Your task to perform on an android device: Show me the best rated power washer on Home Depot. Image 0: 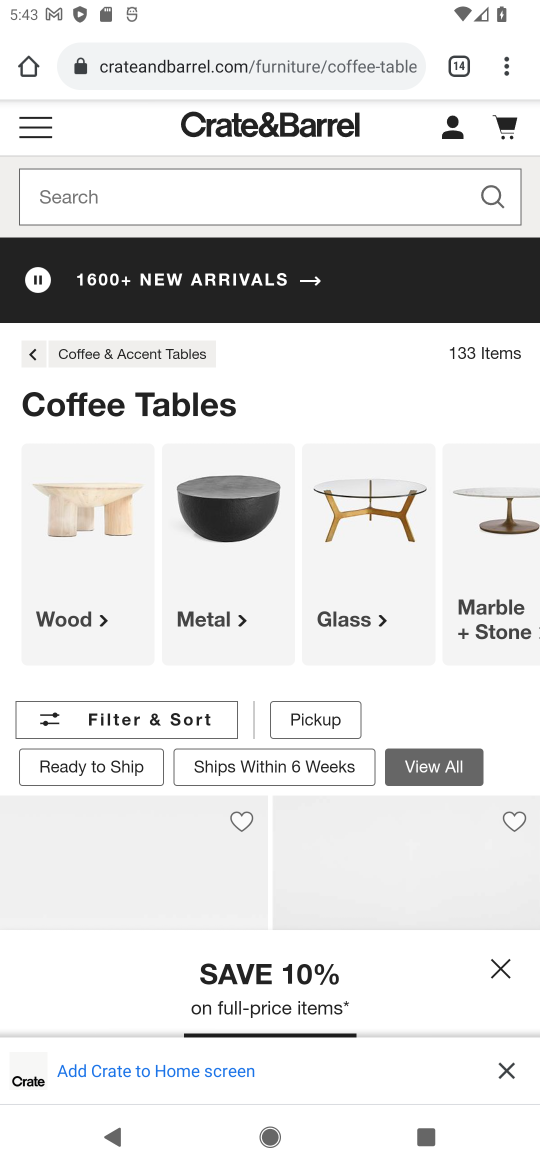
Step 0: drag from (508, 71) to (288, 207)
Your task to perform on an android device: Show me the best rated power washer on Home Depot. Image 1: 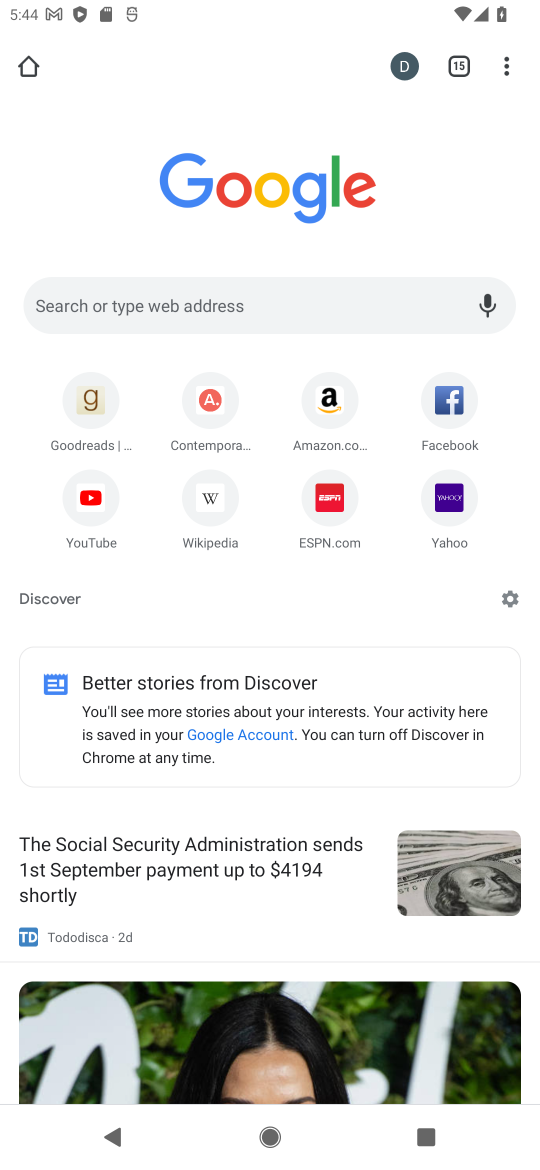
Step 1: click (337, 314)
Your task to perform on an android device: Show me the best rated power washer on Home Depot. Image 2: 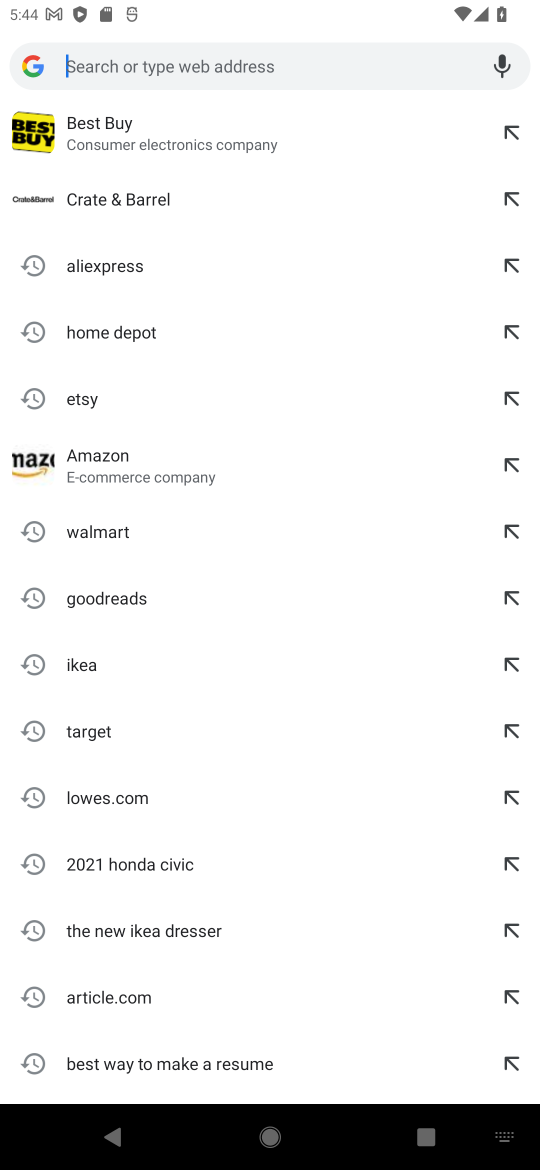
Step 2: type "Home Depot"
Your task to perform on an android device: Show me the best rated power washer on Home Depot. Image 3: 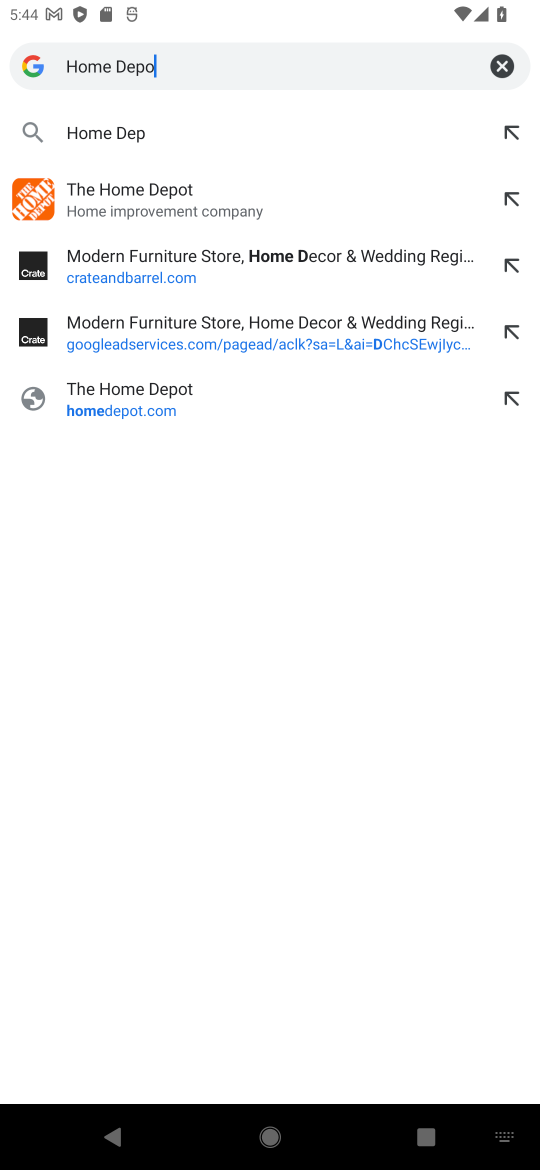
Step 3: type ""
Your task to perform on an android device: Show me the best rated power washer on Home Depot. Image 4: 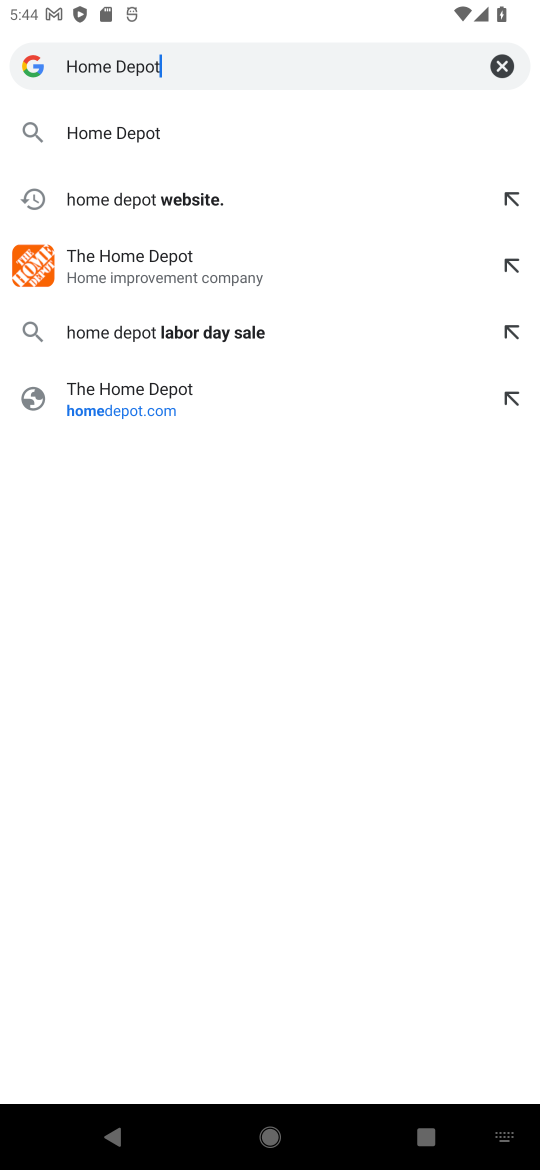
Step 4: click (115, 129)
Your task to perform on an android device: Show me the best rated power washer on Home Depot. Image 5: 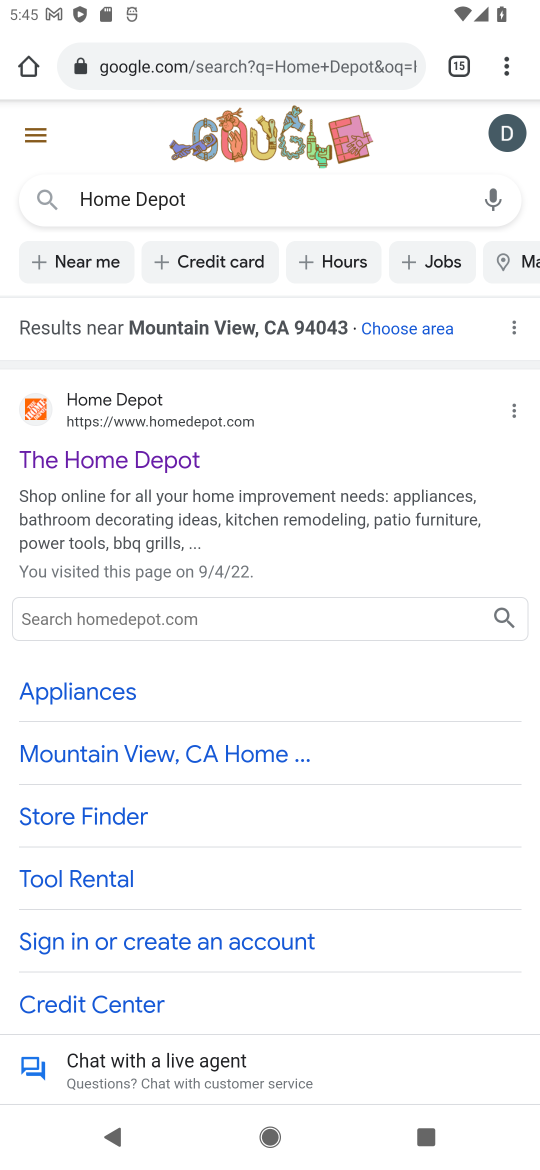
Step 5: click (148, 464)
Your task to perform on an android device: Show me the best rated power washer on Home Depot. Image 6: 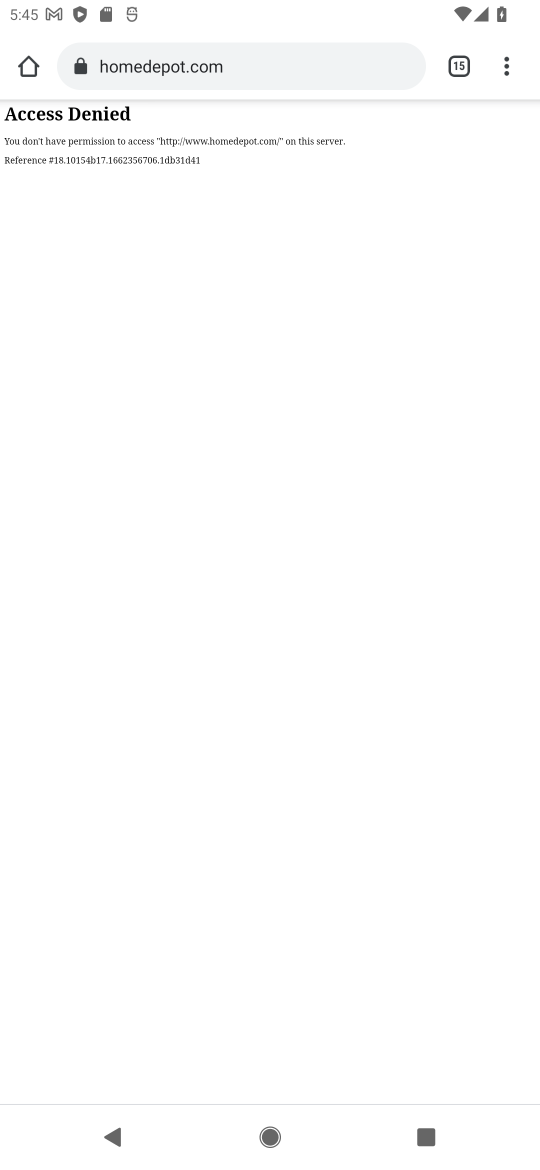
Step 6: task complete